Your task to perform on an android device: turn off picture-in-picture Image 0: 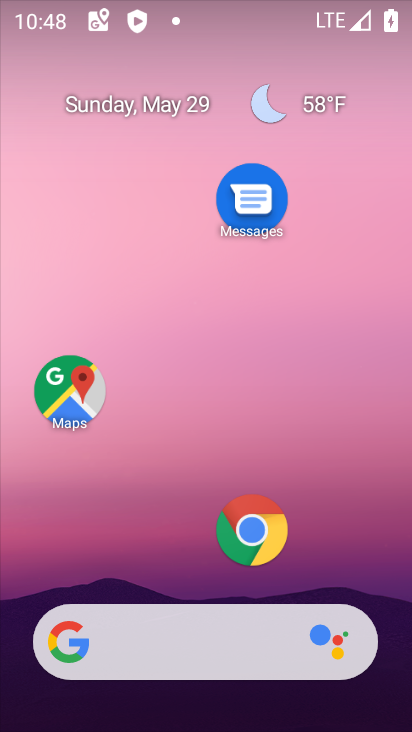
Step 0: click (252, 540)
Your task to perform on an android device: turn off picture-in-picture Image 1: 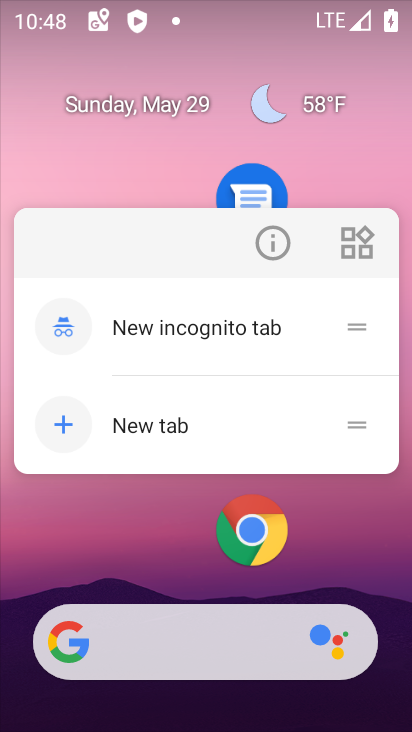
Step 1: click (267, 242)
Your task to perform on an android device: turn off picture-in-picture Image 2: 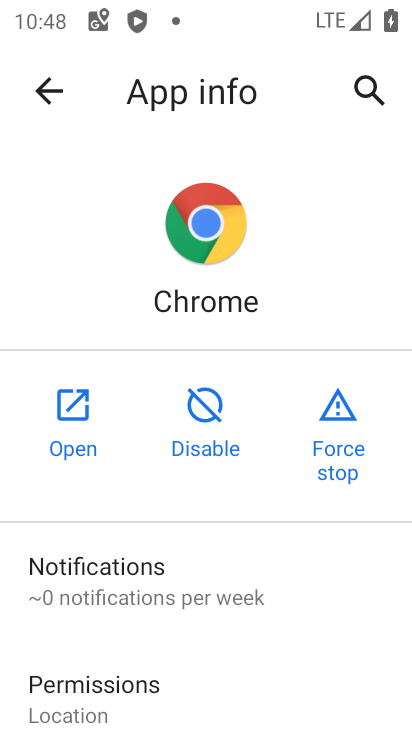
Step 2: drag from (188, 614) to (248, 230)
Your task to perform on an android device: turn off picture-in-picture Image 3: 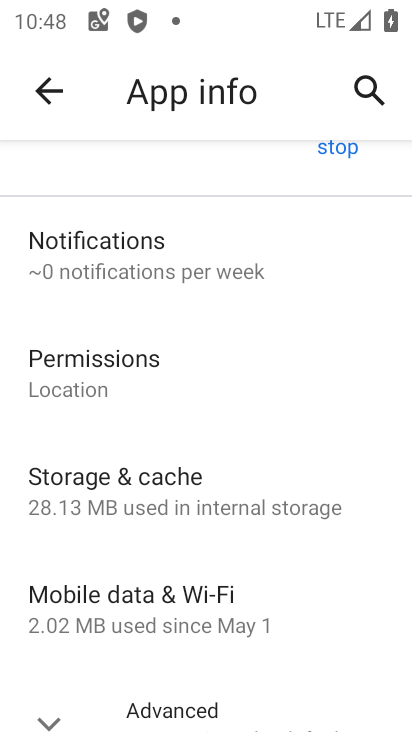
Step 3: drag from (223, 611) to (233, 289)
Your task to perform on an android device: turn off picture-in-picture Image 4: 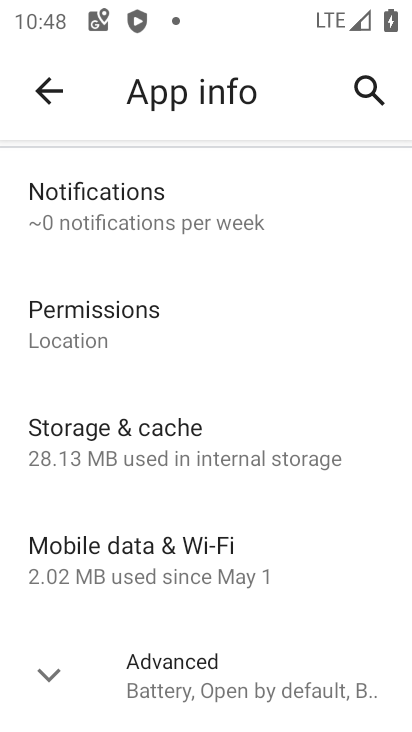
Step 4: click (207, 686)
Your task to perform on an android device: turn off picture-in-picture Image 5: 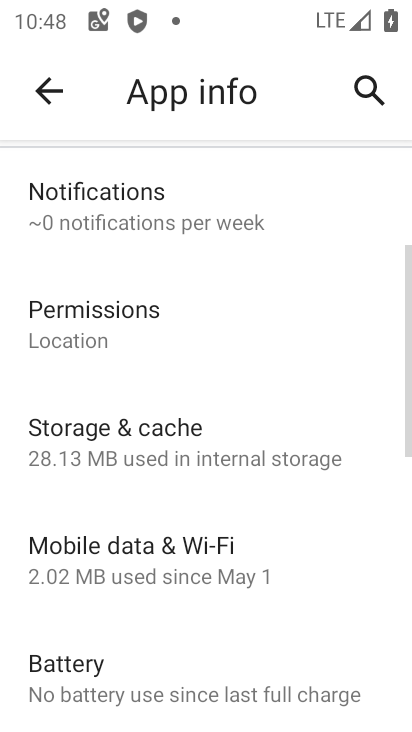
Step 5: drag from (191, 666) to (187, 153)
Your task to perform on an android device: turn off picture-in-picture Image 6: 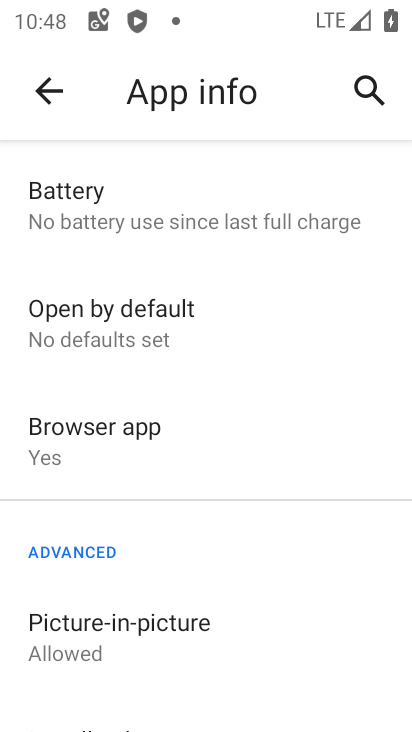
Step 6: click (165, 632)
Your task to perform on an android device: turn off picture-in-picture Image 7: 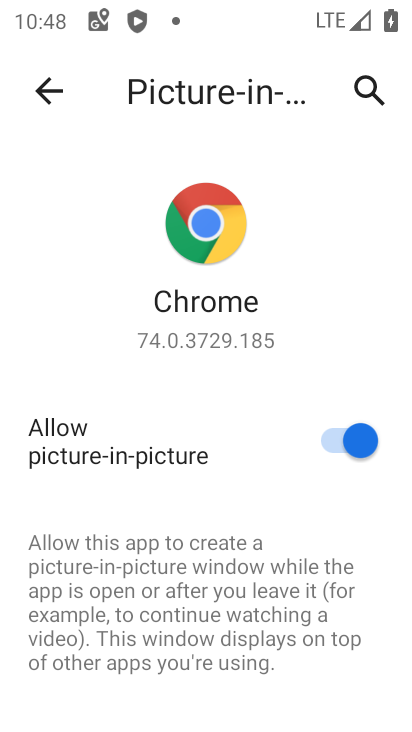
Step 7: drag from (240, 586) to (208, 253)
Your task to perform on an android device: turn off picture-in-picture Image 8: 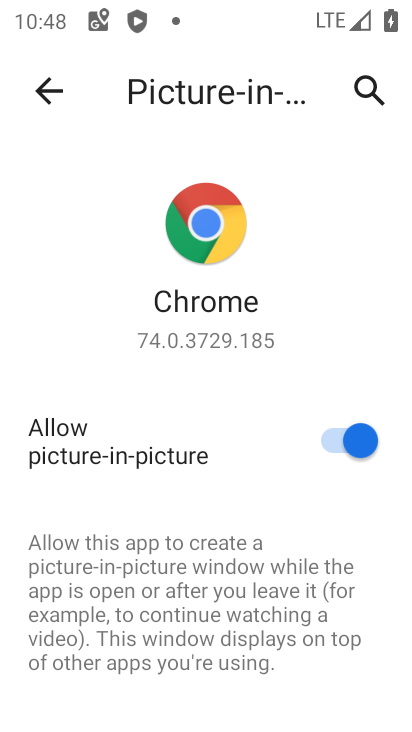
Step 8: click (307, 427)
Your task to perform on an android device: turn off picture-in-picture Image 9: 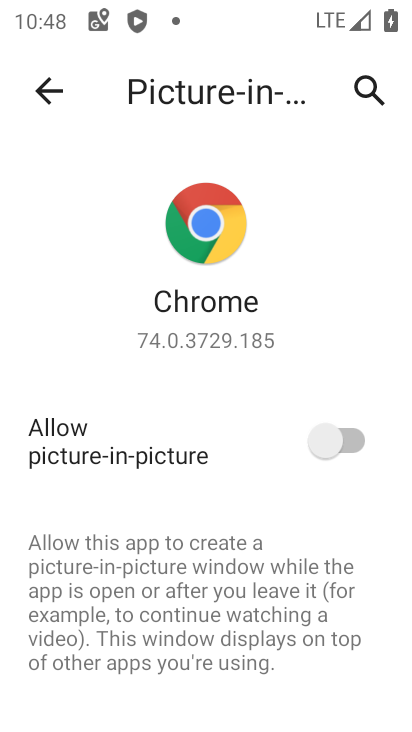
Step 9: task complete